Your task to perform on an android device: Open Android settings Image 0: 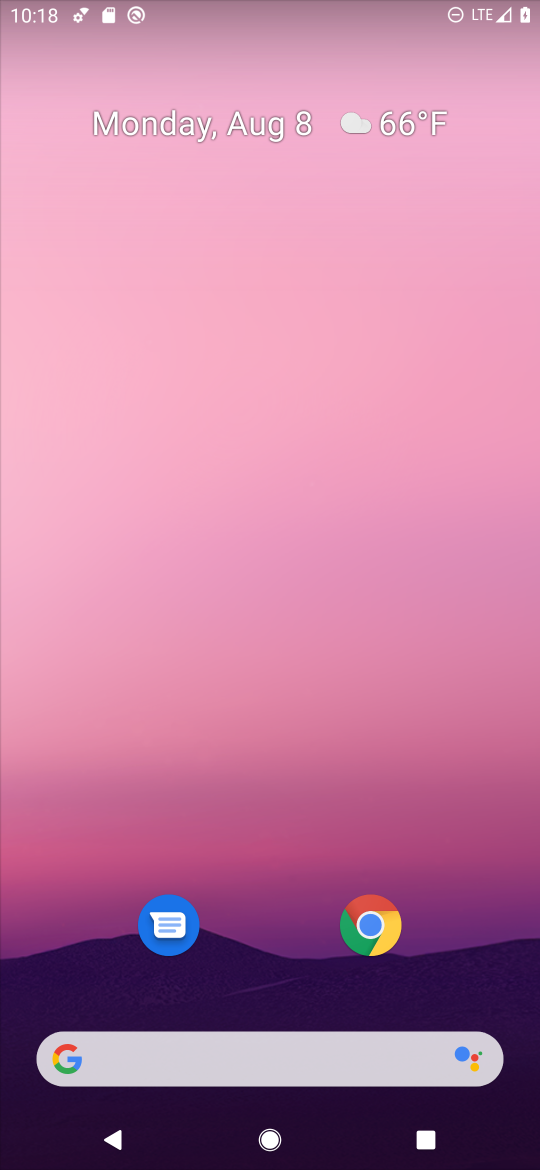
Step 0: drag from (237, 980) to (349, 182)
Your task to perform on an android device: Open Android settings Image 1: 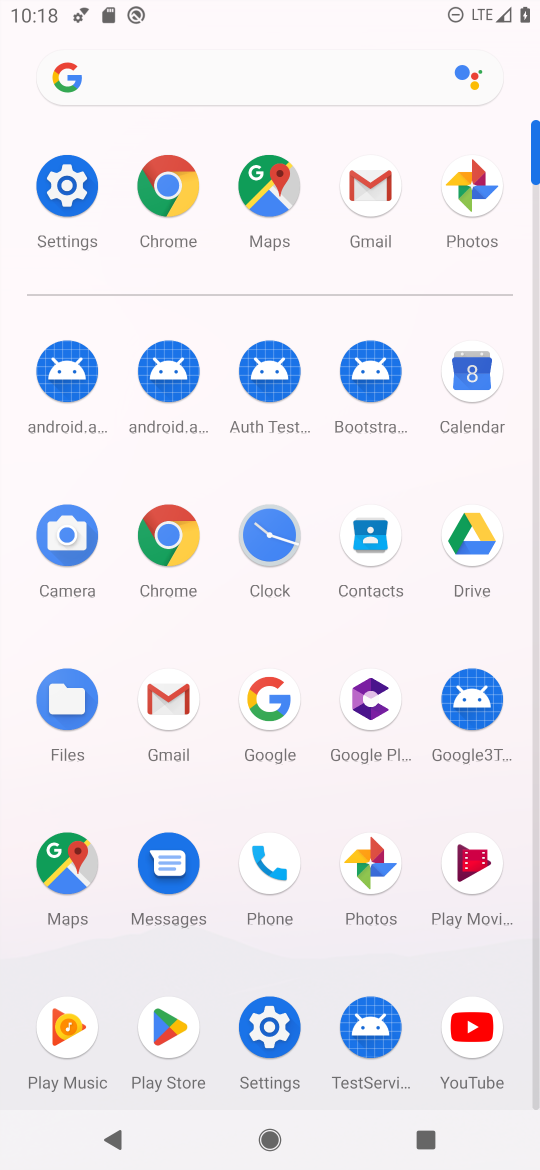
Step 1: click (248, 1031)
Your task to perform on an android device: Open Android settings Image 2: 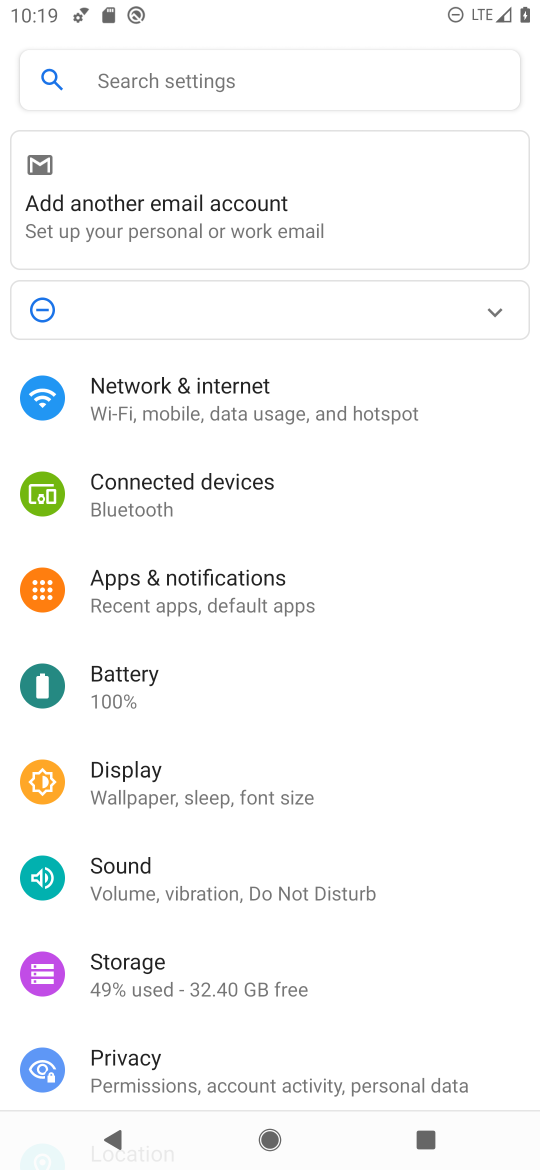
Step 2: task complete